Your task to perform on an android device: manage bookmarks in the chrome app Image 0: 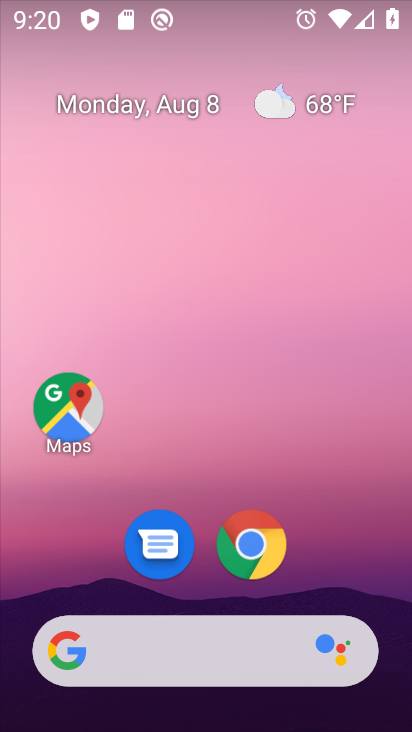
Step 0: press home button
Your task to perform on an android device: manage bookmarks in the chrome app Image 1: 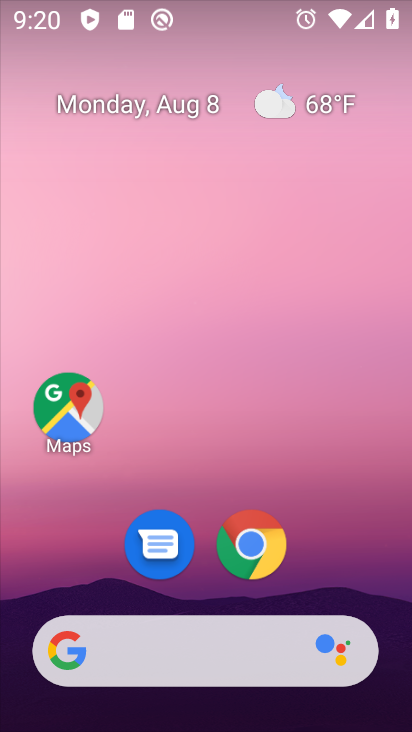
Step 1: drag from (313, 585) to (350, 48)
Your task to perform on an android device: manage bookmarks in the chrome app Image 2: 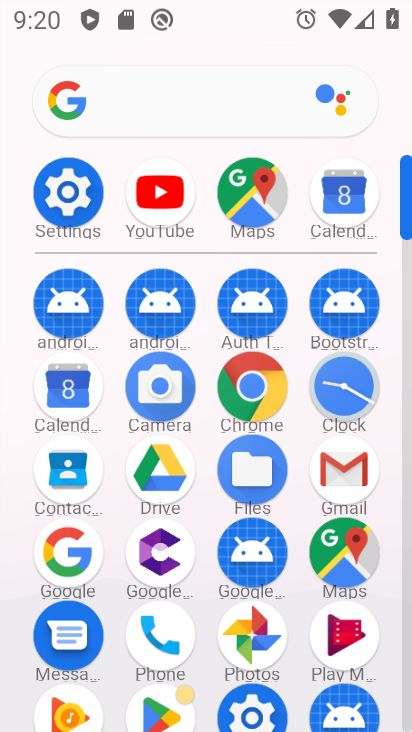
Step 2: click (245, 384)
Your task to perform on an android device: manage bookmarks in the chrome app Image 3: 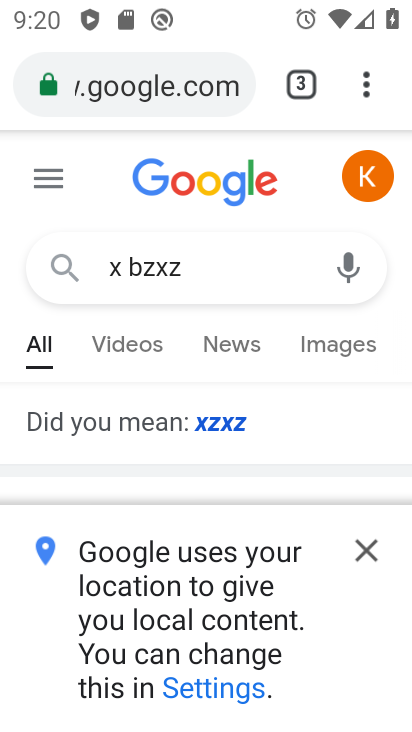
Step 3: click (361, 91)
Your task to perform on an android device: manage bookmarks in the chrome app Image 4: 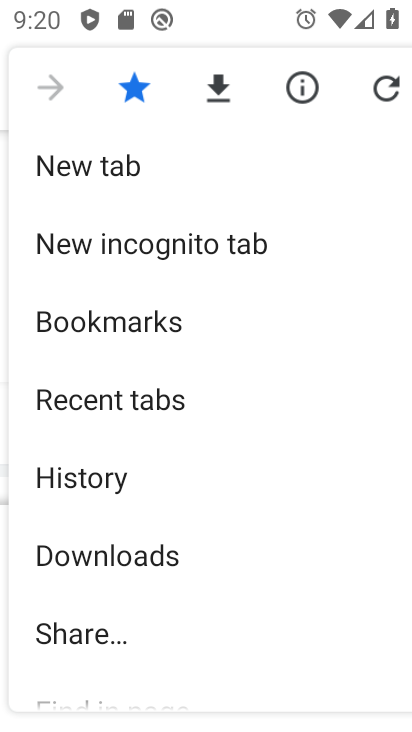
Step 4: click (197, 316)
Your task to perform on an android device: manage bookmarks in the chrome app Image 5: 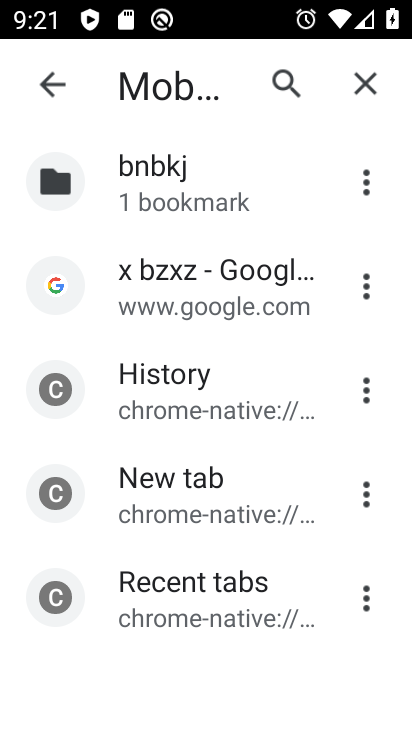
Step 5: click (364, 391)
Your task to perform on an android device: manage bookmarks in the chrome app Image 6: 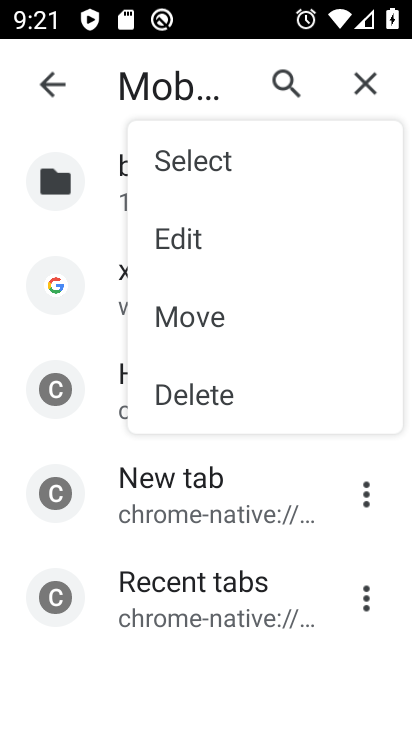
Step 6: click (224, 398)
Your task to perform on an android device: manage bookmarks in the chrome app Image 7: 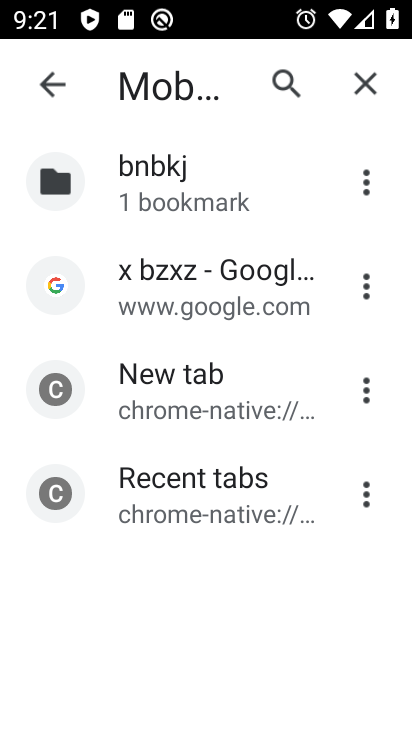
Step 7: task complete